Your task to perform on an android device: check google app version Image 0: 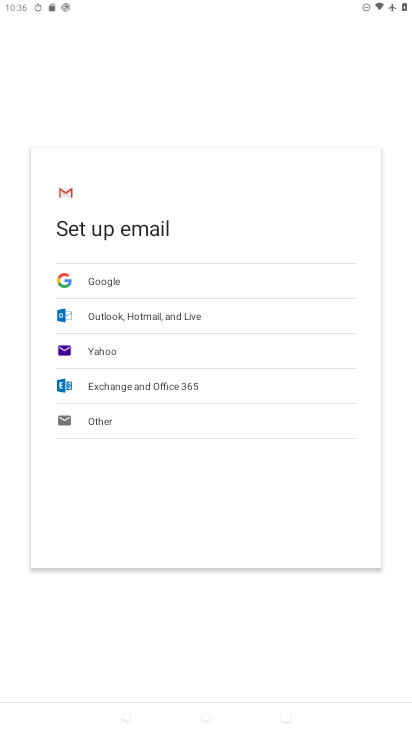
Step 0: press home button
Your task to perform on an android device: check google app version Image 1: 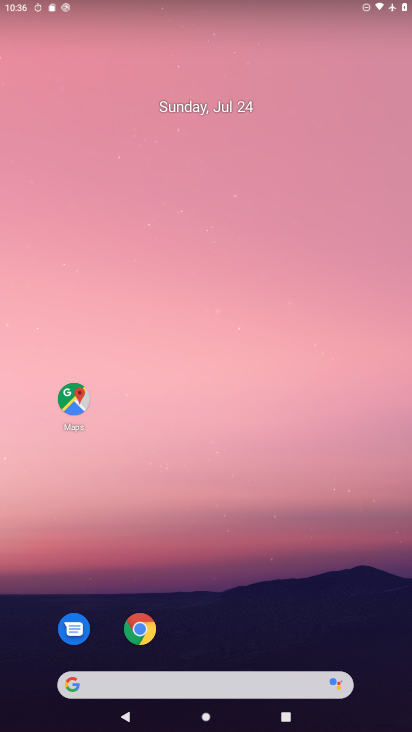
Step 1: drag from (196, 565) to (192, 206)
Your task to perform on an android device: check google app version Image 2: 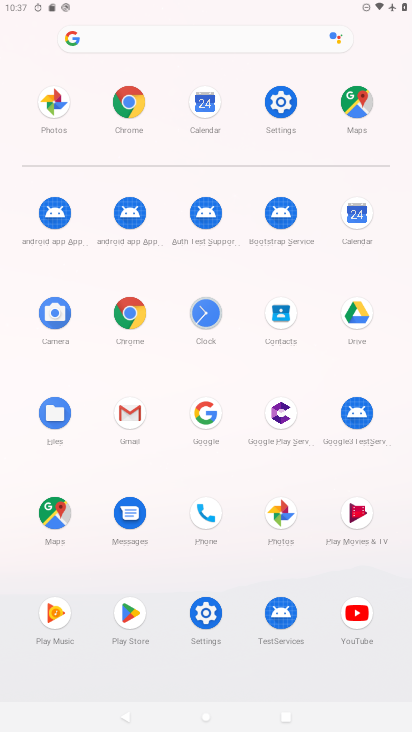
Step 2: click (207, 433)
Your task to perform on an android device: check google app version Image 3: 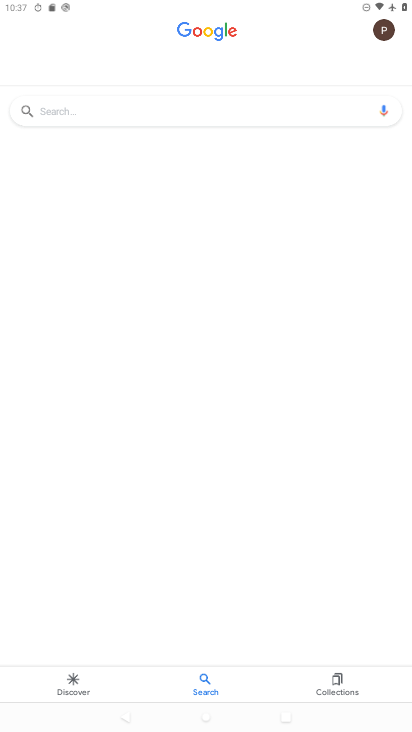
Step 3: click (384, 30)
Your task to perform on an android device: check google app version Image 4: 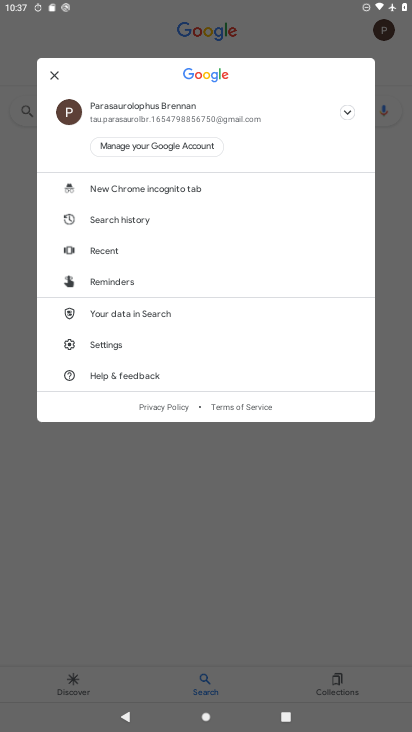
Step 4: click (84, 342)
Your task to perform on an android device: check google app version Image 5: 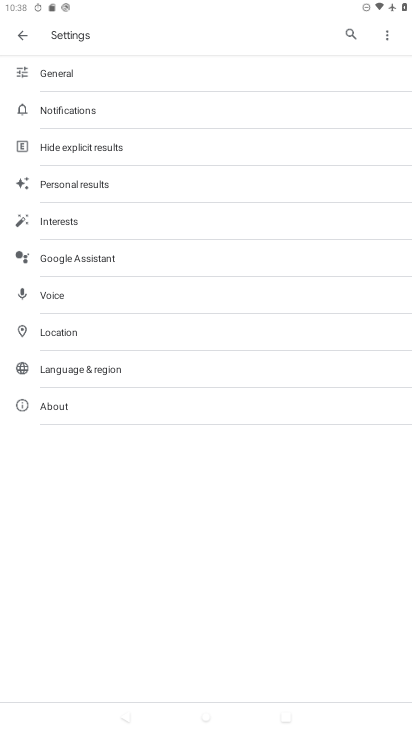
Step 5: click (91, 405)
Your task to perform on an android device: check google app version Image 6: 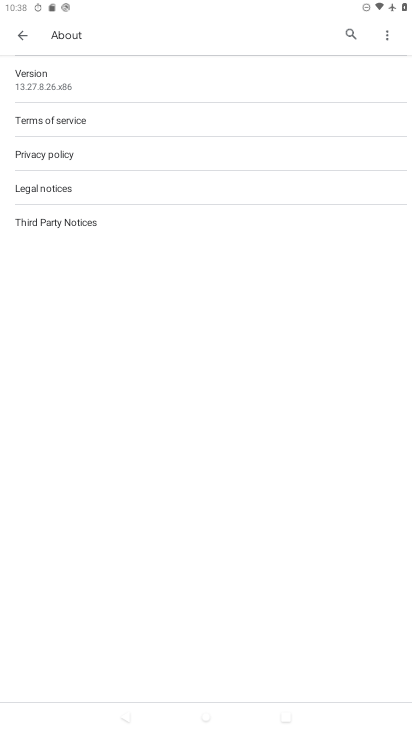
Step 6: task complete